Your task to perform on an android device: Search for Italian restaurants on Maps Image 0: 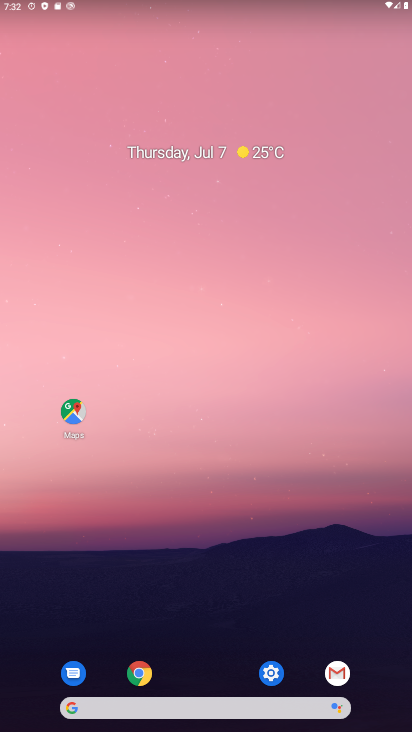
Step 0: press home button
Your task to perform on an android device: Search for Italian restaurants on Maps Image 1: 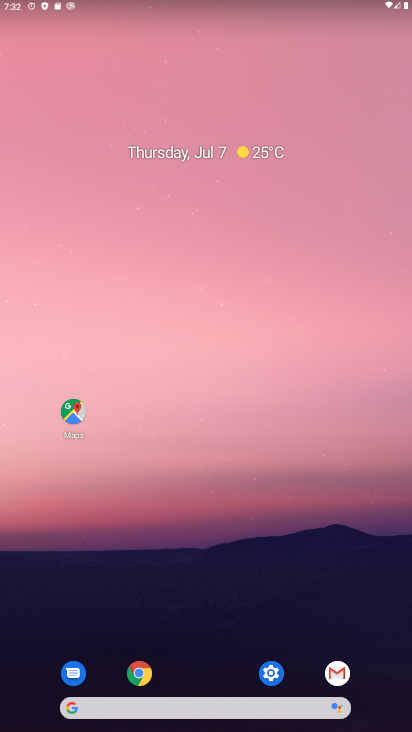
Step 1: drag from (219, 720) to (188, 306)
Your task to perform on an android device: Search for Italian restaurants on Maps Image 2: 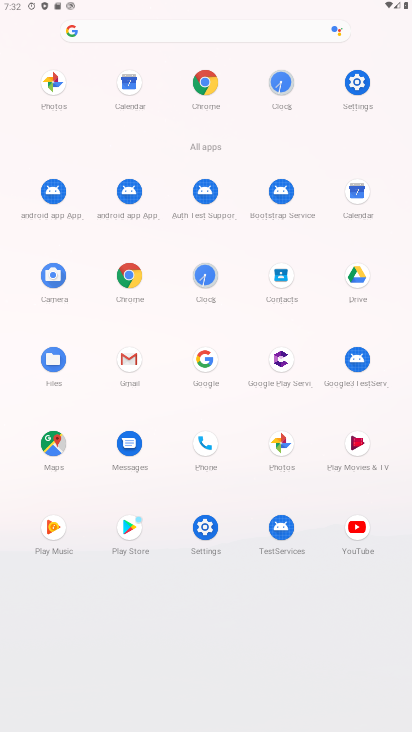
Step 2: click (53, 436)
Your task to perform on an android device: Search for Italian restaurants on Maps Image 3: 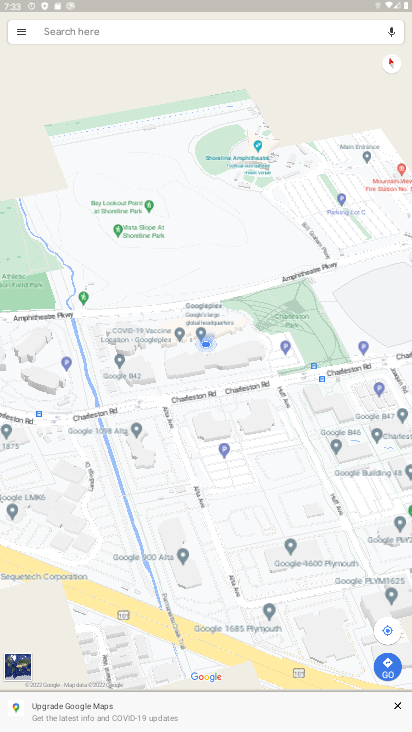
Step 3: click (104, 21)
Your task to perform on an android device: Search for Italian restaurants on Maps Image 4: 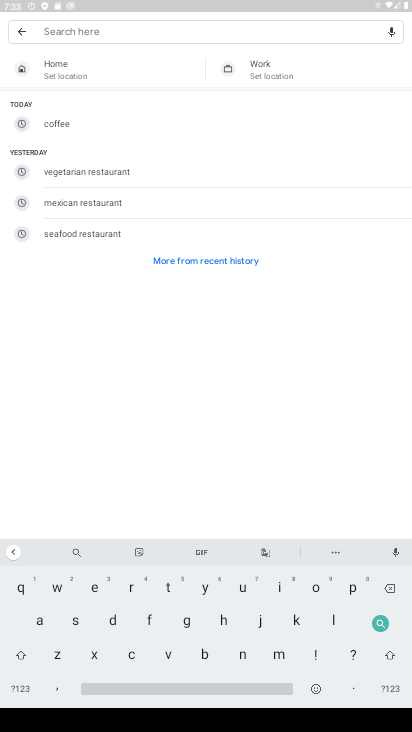
Step 4: click (280, 585)
Your task to perform on an android device: Search for Italian restaurants on Maps Image 5: 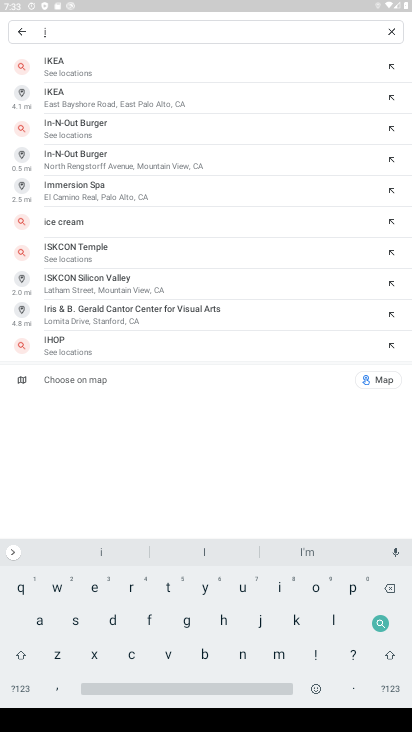
Step 5: click (165, 588)
Your task to perform on an android device: Search for Italian restaurants on Maps Image 6: 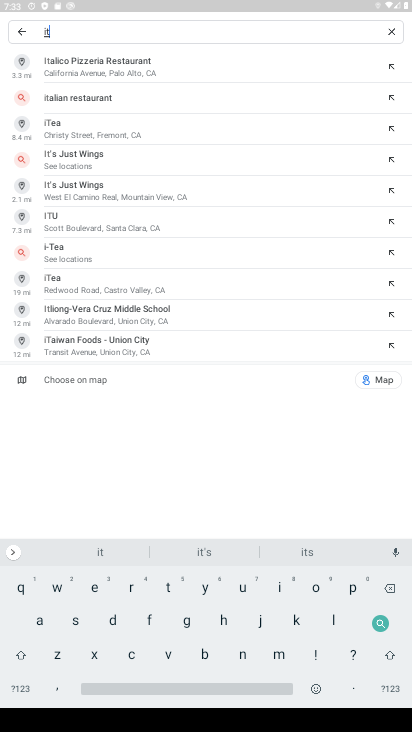
Step 6: click (110, 98)
Your task to perform on an android device: Search for Italian restaurants on Maps Image 7: 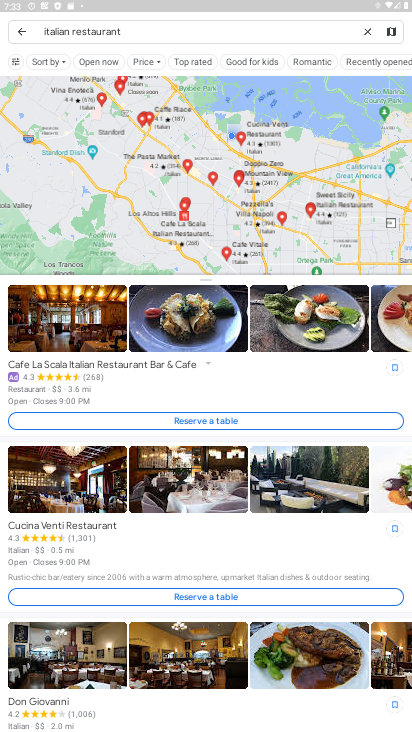
Step 7: task complete